Your task to perform on an android device: turn pop-ups off in chrome Image 0: 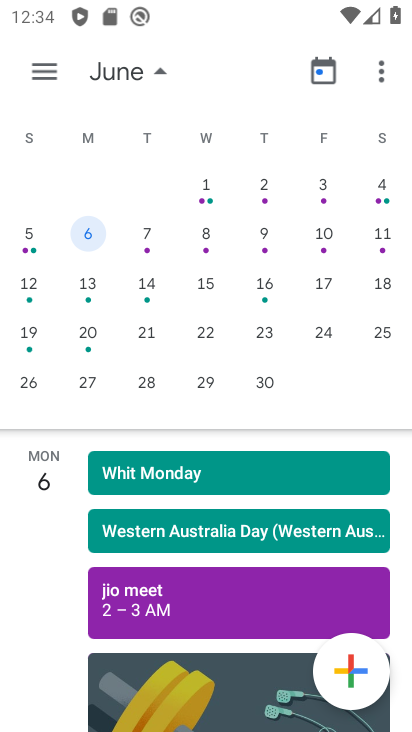
Step 0: press home button
Your task to perform on an android device: turn pop-ups off in chrome Image 1: 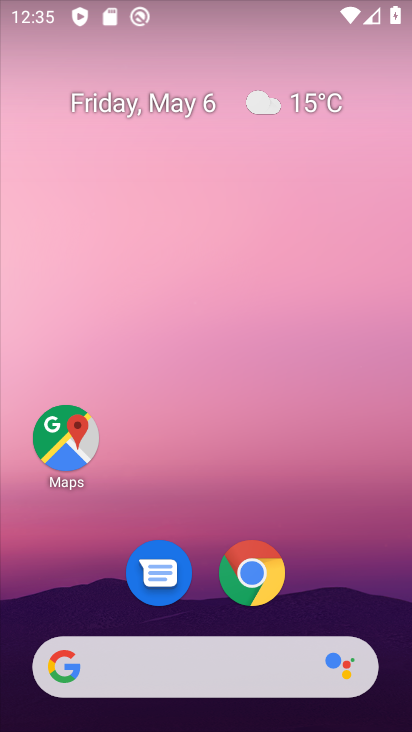
Step 1: click (250, 576)
Your task to perform on an android device: turn pop-ups off in chrome Image 2: 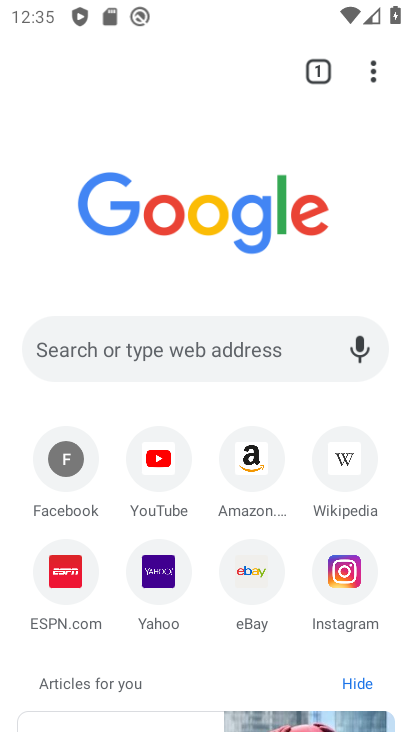
Step 2: drag from (373, 74) to (224, 586)
Your task to perform on an android device: turn pop-ups off in chrome Image 3: 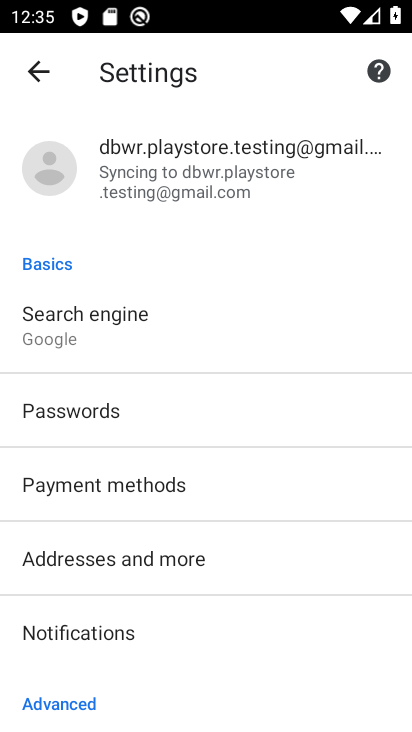
Step 3: drag from (154, 660) to (204, 256)
Your task to perform on an android device: turn pop-ups off in chrome Image 4: 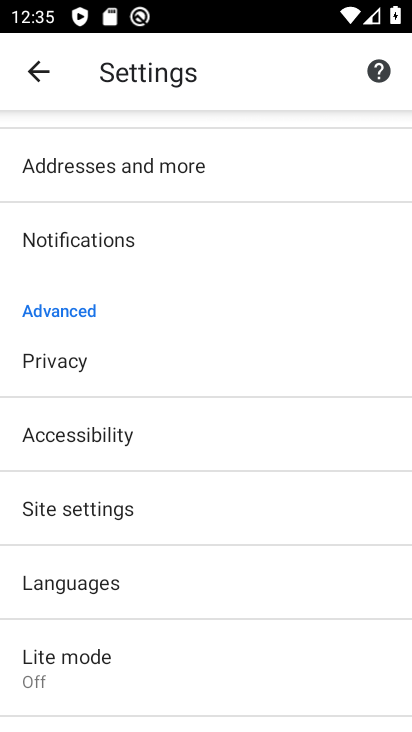
Step 4: click (126, 498)
Your task to perform on an android device: turn pop-ups off in chrome Image 5: 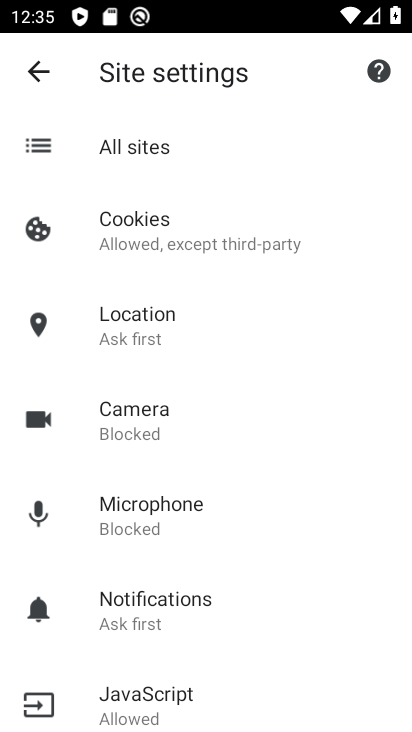
Step 5: drag from (193, 637) to (184, 314)
Your task to perform on an android device: turn pop-ups off in chrome Image 6: 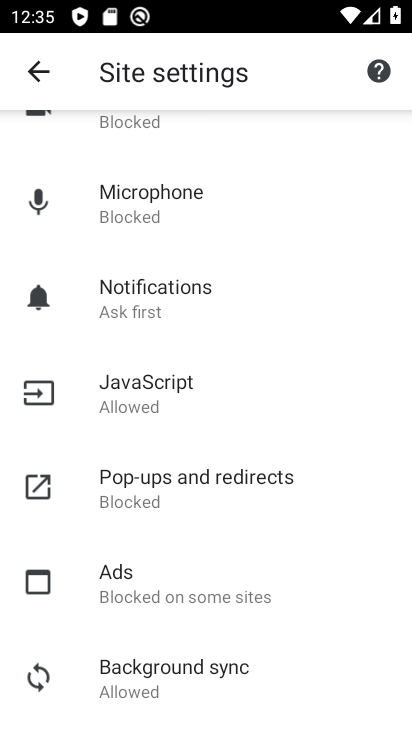
Step 6: click (194, 472)
Your task to perform on an android device: turn pop-ups off in chrome Image 7: 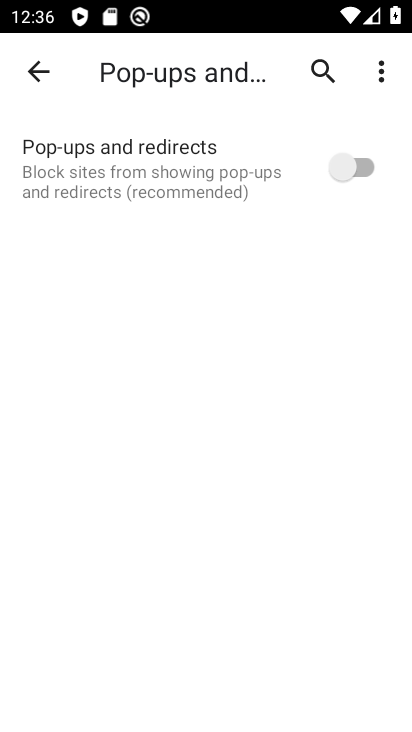
Step 7: task complete